Your task to perform on an android device: see tabs open on other devices in the chrome app Image 0: 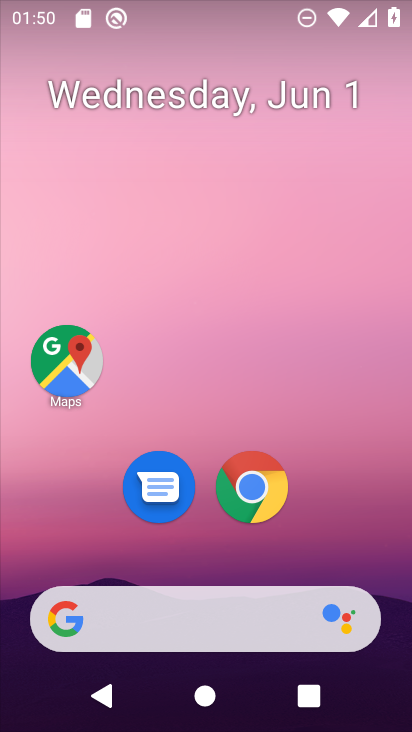
Step 0: drag from (337, 492) to (353, 164)
Your task to perform on an android device: see tabs open on other devices in the chrome app Image 1: 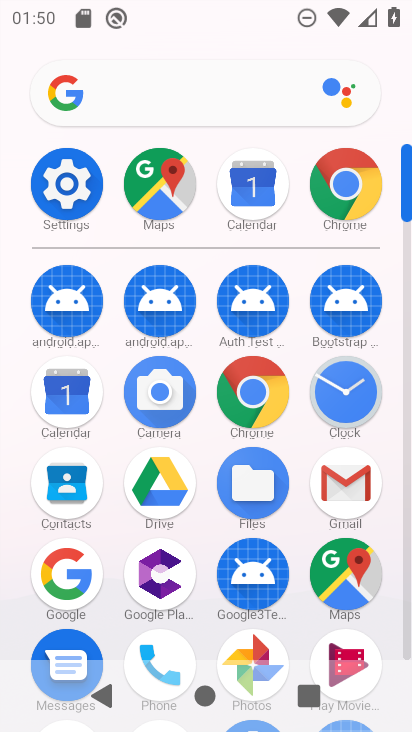
Step 1: click (247, 390)
Your task to perform on an android device: see tabs open on other devices in the chrome app Image 2: 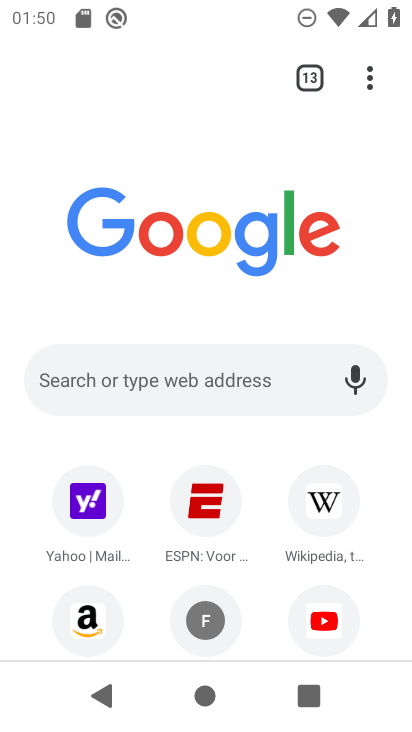
Step 2: click (364, 73)
Your task to perform on an android device: see tabs open on other devices in the chrome app Image 3: 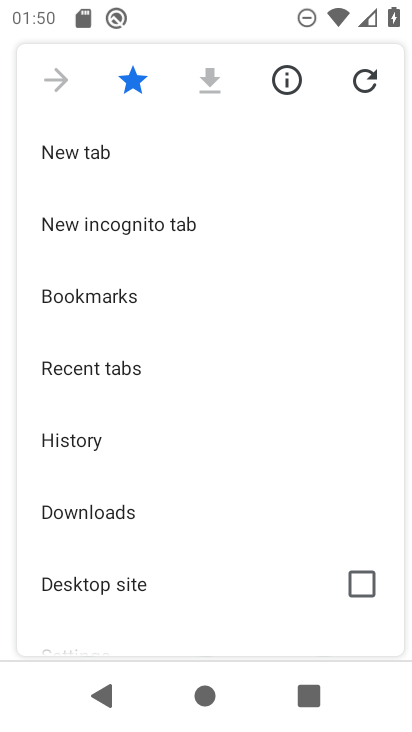
Step 3: drag from (183, 550) to (213, 272)
Your task to perform on an android device: see tabs open on other devices in the chrome app Image 4: 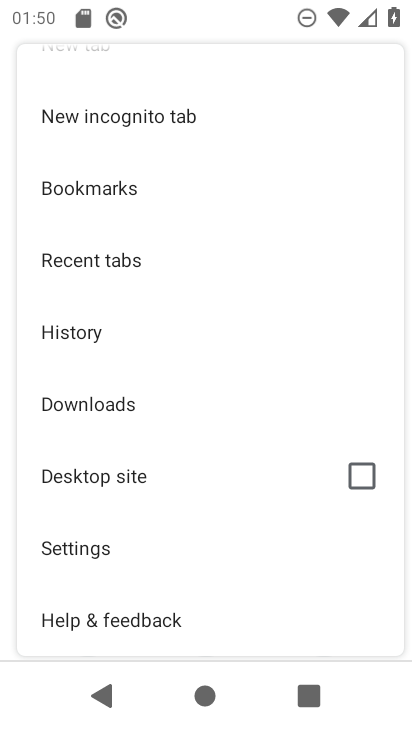
Step 4: drag from (171, 291) to (181, 613)
Your task to perform on an android device: see tabs open on other devices in the chrome app Image 5: 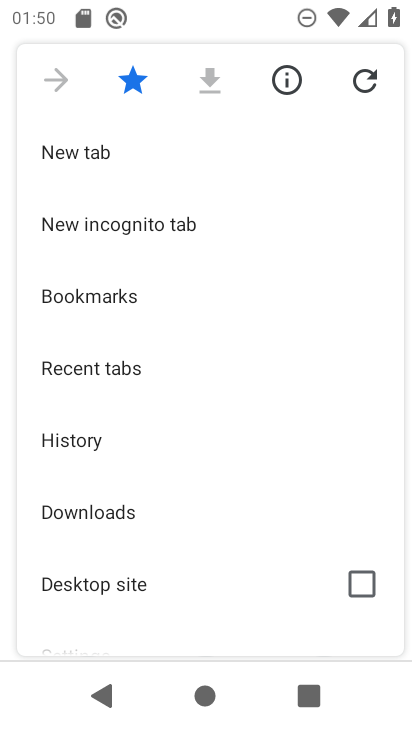
Step 5: click (85, 442)
Your task to perform on an android device: see tabs open on other devices in the chrome app Image 6: 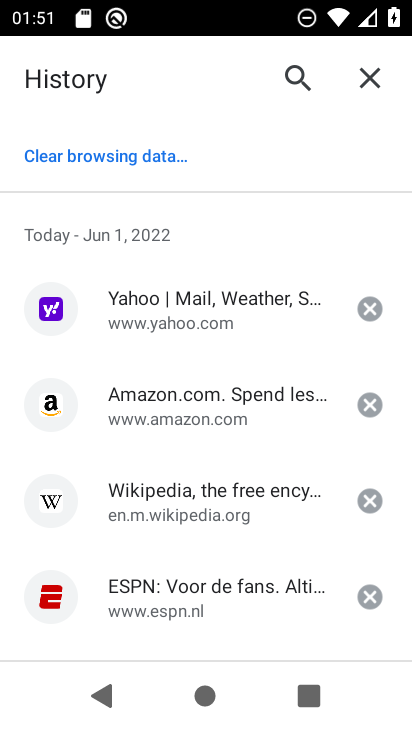
Step 6: task complete